Your task to perform on an android device: Go to CNN.com Image 0: 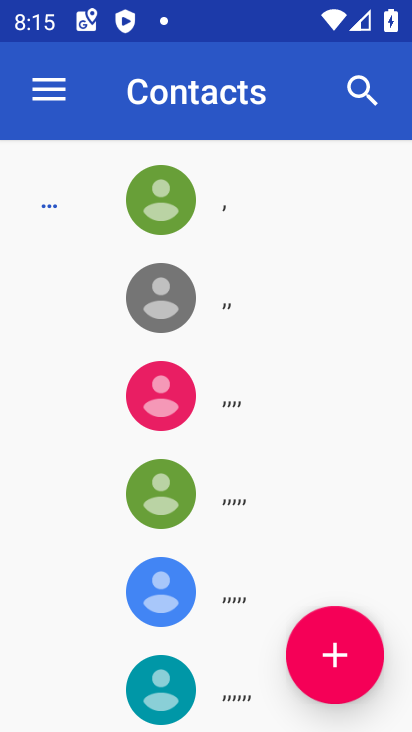
Step 0: press home button
Your task to perform on an android device: Go to CNN.com Image 1: 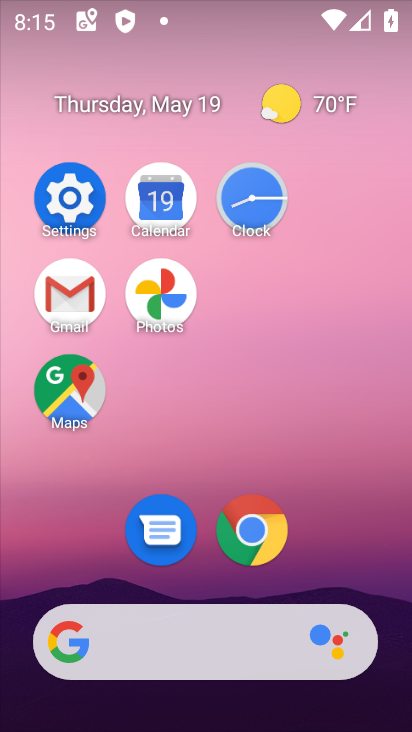
Step 1: click (263, 542)
Your task to perform on an android device: Go to CNN.com Image 2: 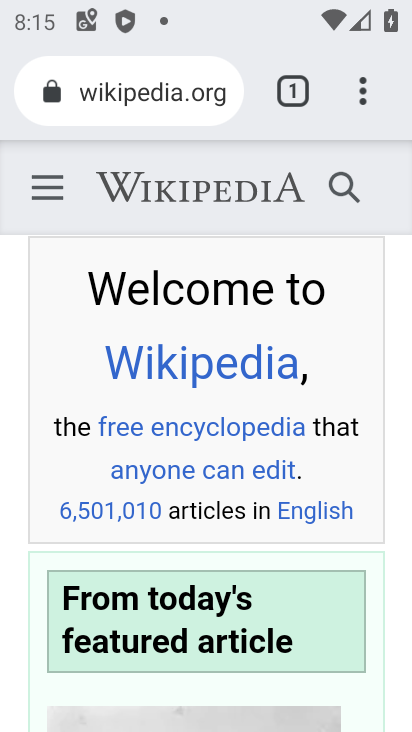
Step 2: click (288, 104)
Your task to perform on an android device: Go to CNN.com Image 3: 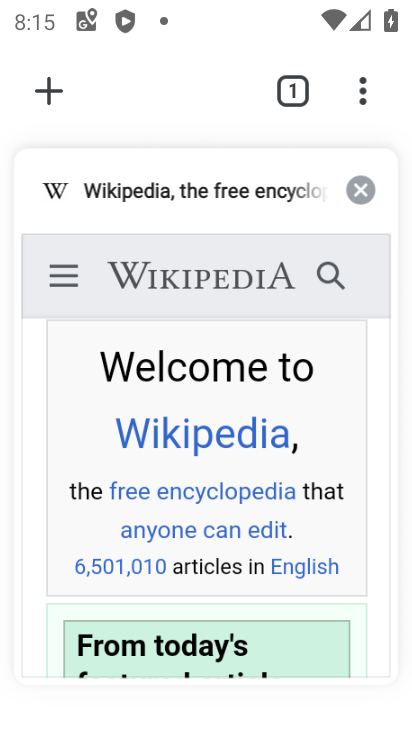
Step 3: click (53, 111)
Your task to perform on an android device: Go to CNN.com Image 4: 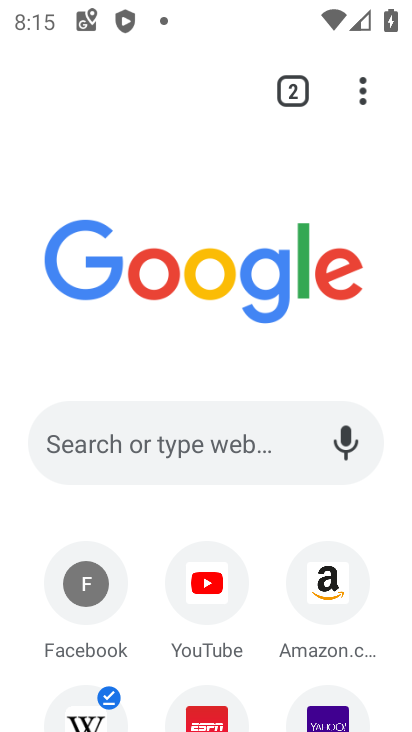
Step 4: click (187, 447)
Your task to perform on an android device: Go to CNN.com Image 5: 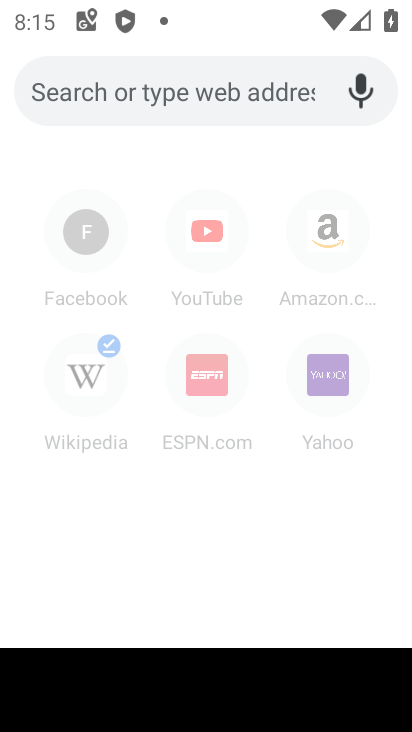
Step 5: type "cnn"
Your task to perform on an android device: Go to CNN.com Image 6: 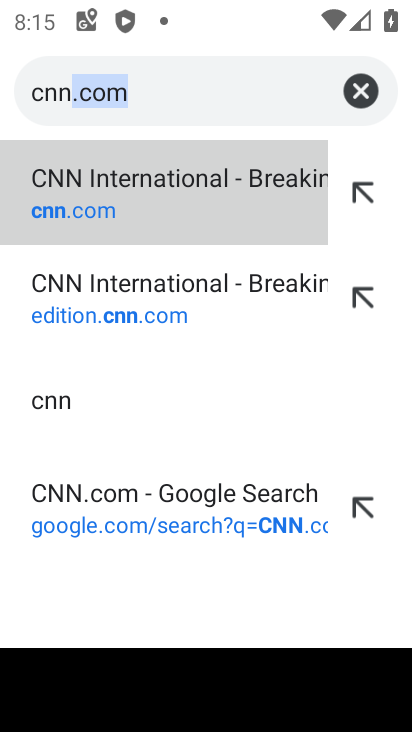
Step 6: click (115, 205)
Your task to perform on an android device: Go to CNN.com Image 7: 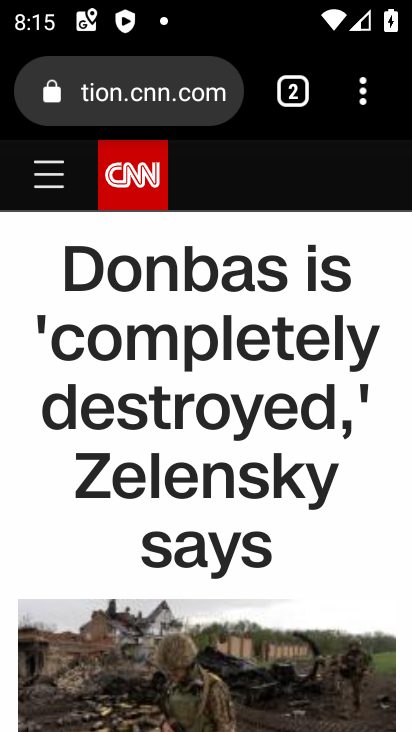
Step 7: task complete